Your task to perform on an android device: make emails show in primary in the gmail app Image 0: 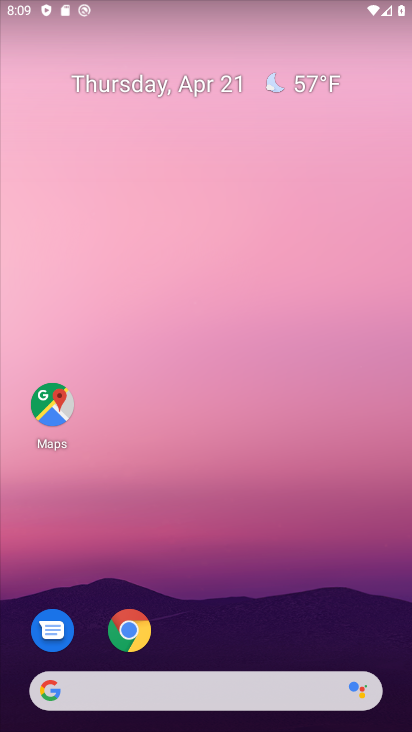
Step 0: drag from (316, 628) to (286, 290)
Your task to perform on an android device: make emails show in primary in the gmail app Image 1: 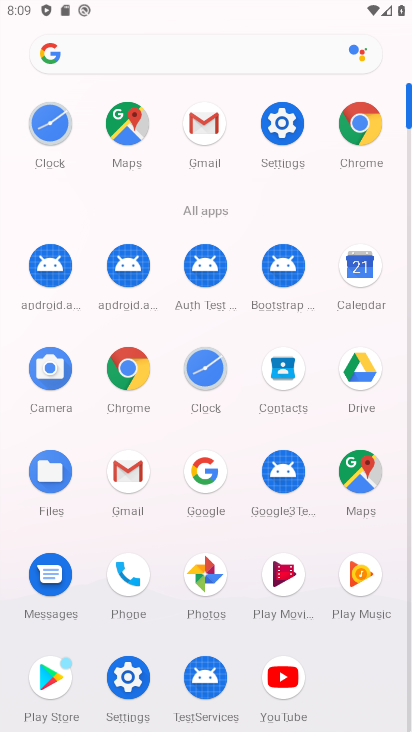
Step 1: click (126, 481)
Your task to perform on an android device: make emails show in primary in the gmail app Image 2: 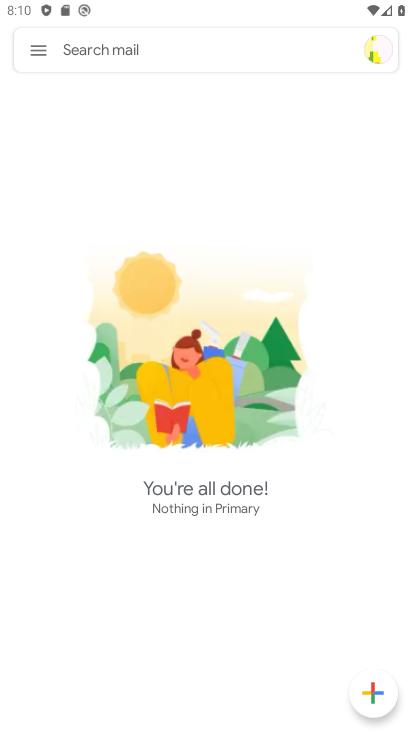
Step 2: task complete